Your task to perform on an android device: Check the weather Image 0: 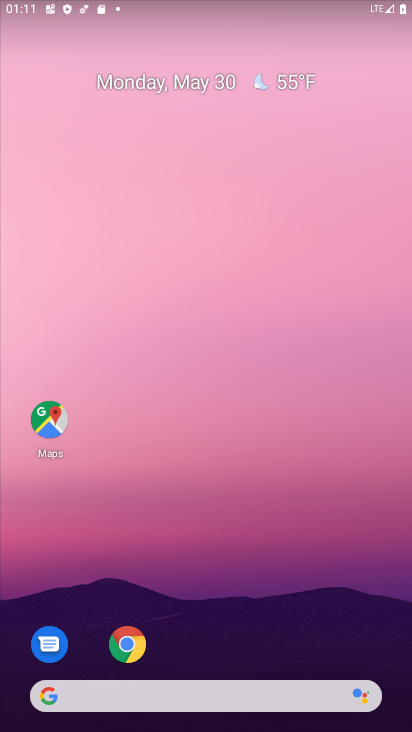
Step 0: drag from (317, 523) to (298, 168)
Your task to perform on an android device: Check the weather Image 1: 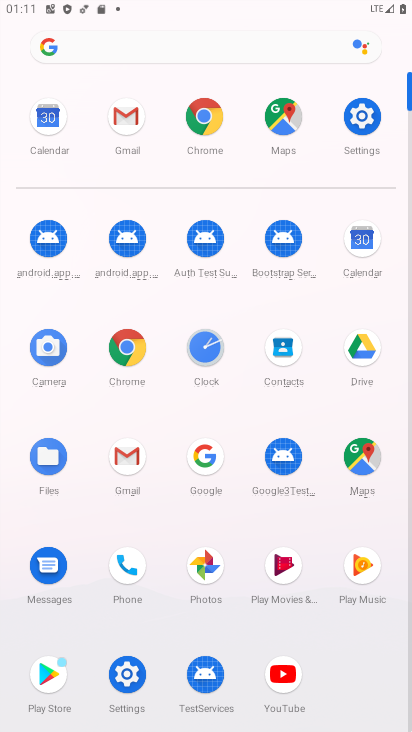
Step 1: click (202, 115)
Your task to perform on an android device: Check the weather Image 2: 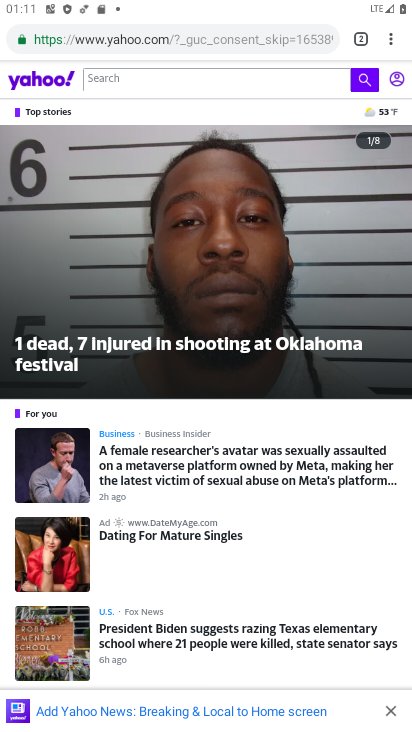
Step 2: click (170, 50)
Your task to perform on an android device: Check the weather Image 3: 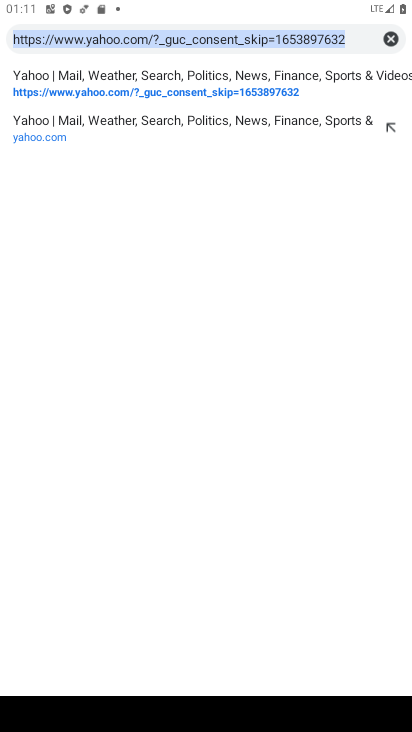
Step 3: click (385, 39)
Your task to perform on an android device: Check the weather Image 4: 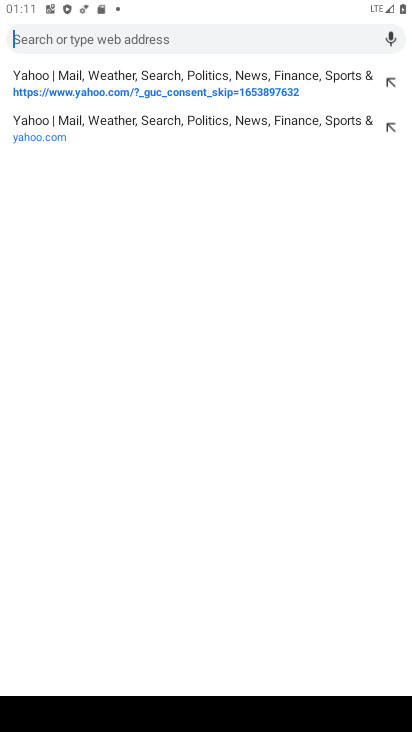
Step 4: type "check the weathe r"
Your task to perform on an android device: Check the weather Image 5: 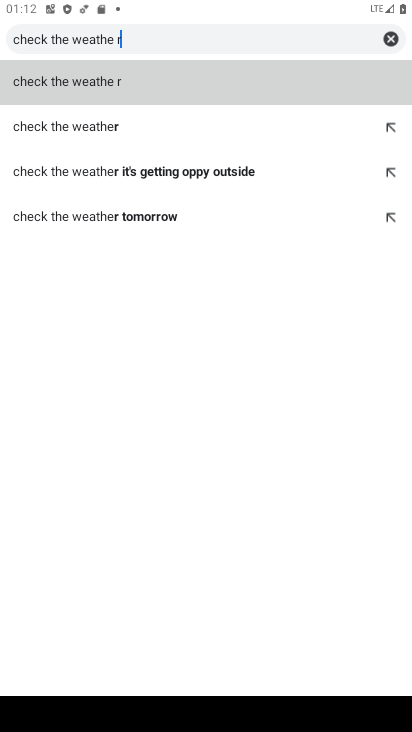
Step 5: click (47, 133)
Your task to perform on an android device: Check the weather Image 6: 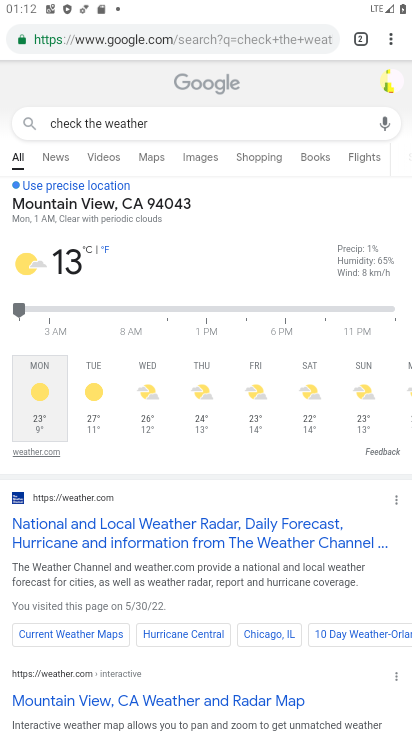
Step 6: task complete